Your task to perform on an android device: find snoozed emails in the gmail app Image 0: 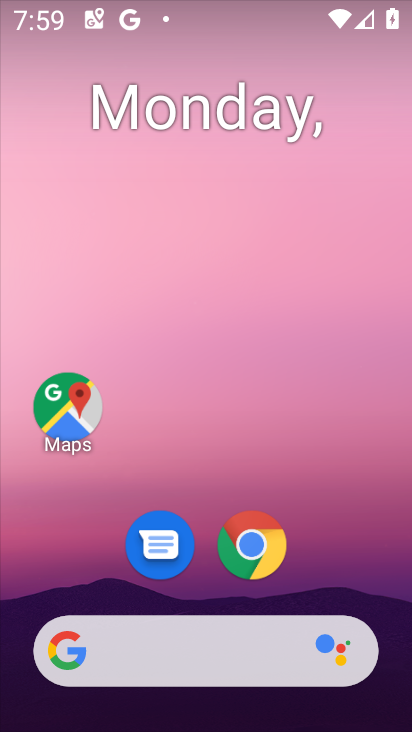
Step 0: press home button
Your task to perform on an android device: find snoozed emails in the gmail app Image 1: 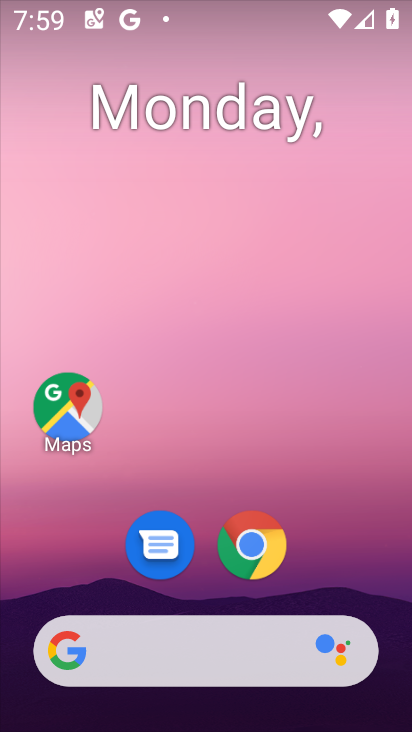
Step 1: drag from (228, 661) to (330, 205)
Your task to perform on an android device: find snoozed emails in the gmail app Image 2: 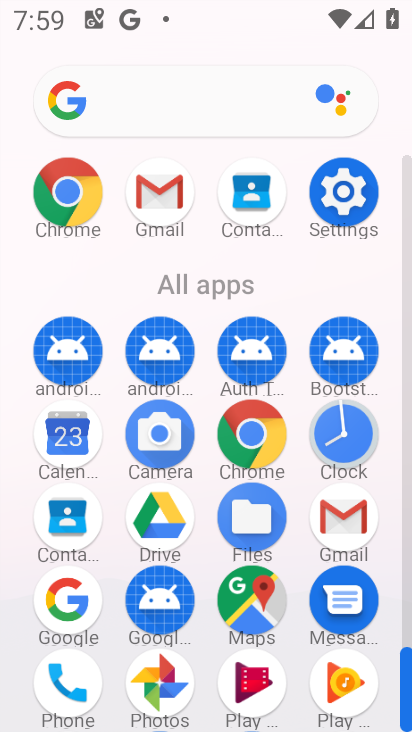
Step 2: click (162, 202)
Your task to perform on an android device: find snoozed emails in the gmail app Image 3: 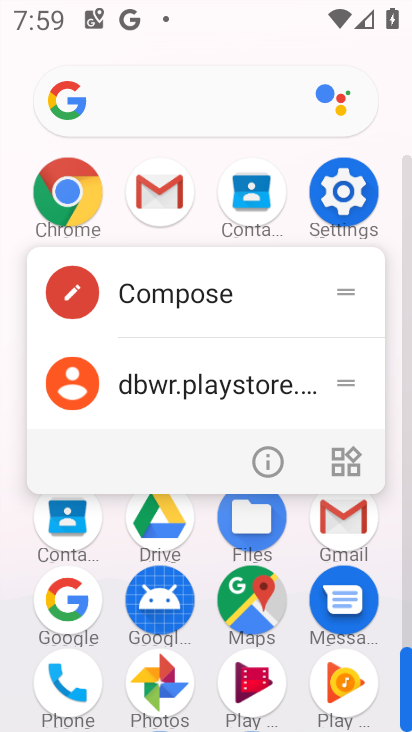
Step 3: click (162, 201)
Your task to perform on an android device: find snoozed emails in the gmail app Image 4: 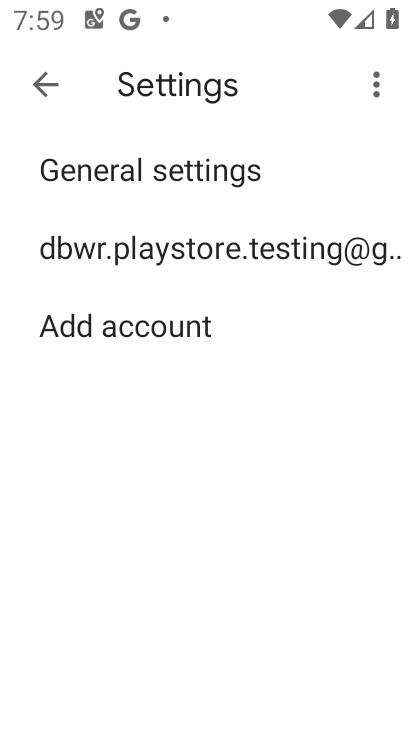
Step 4: click (52, 71)
Your task to perform on an android device: find snoozed emails in the gmail app Image 5: 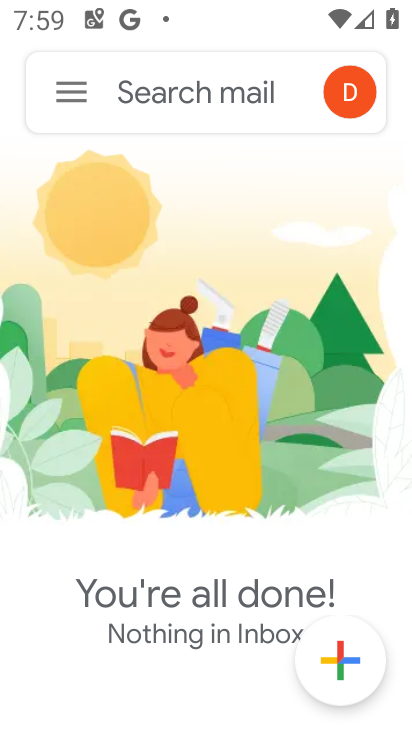
Step 5: click (69, 98)
Your task to perform on an android device: find snoozed emails in the gmail app Image 6: 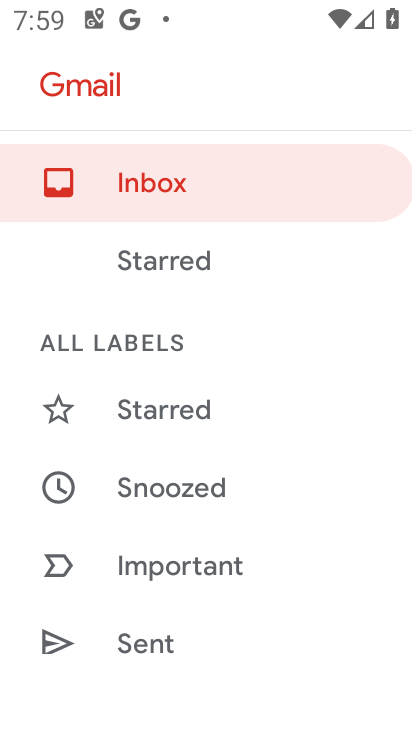
Step 6: click (202, 488)
Your task to perform on an android device: find snoozed emails in the gmail app Image 7: 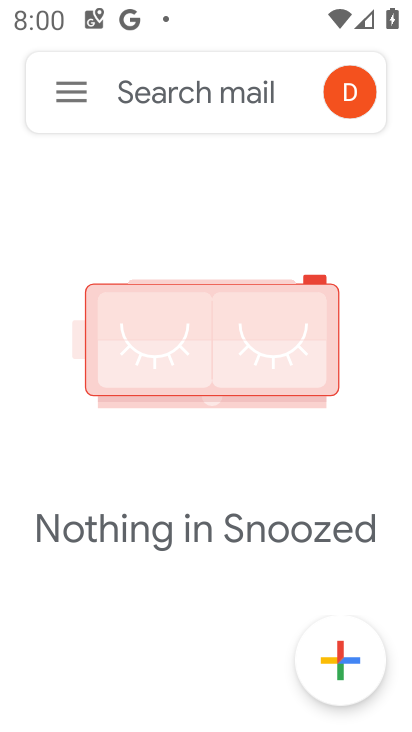
Step 7: task complete